Your task to perform on an android device: View the shopping cart on costco.com. Image 0: 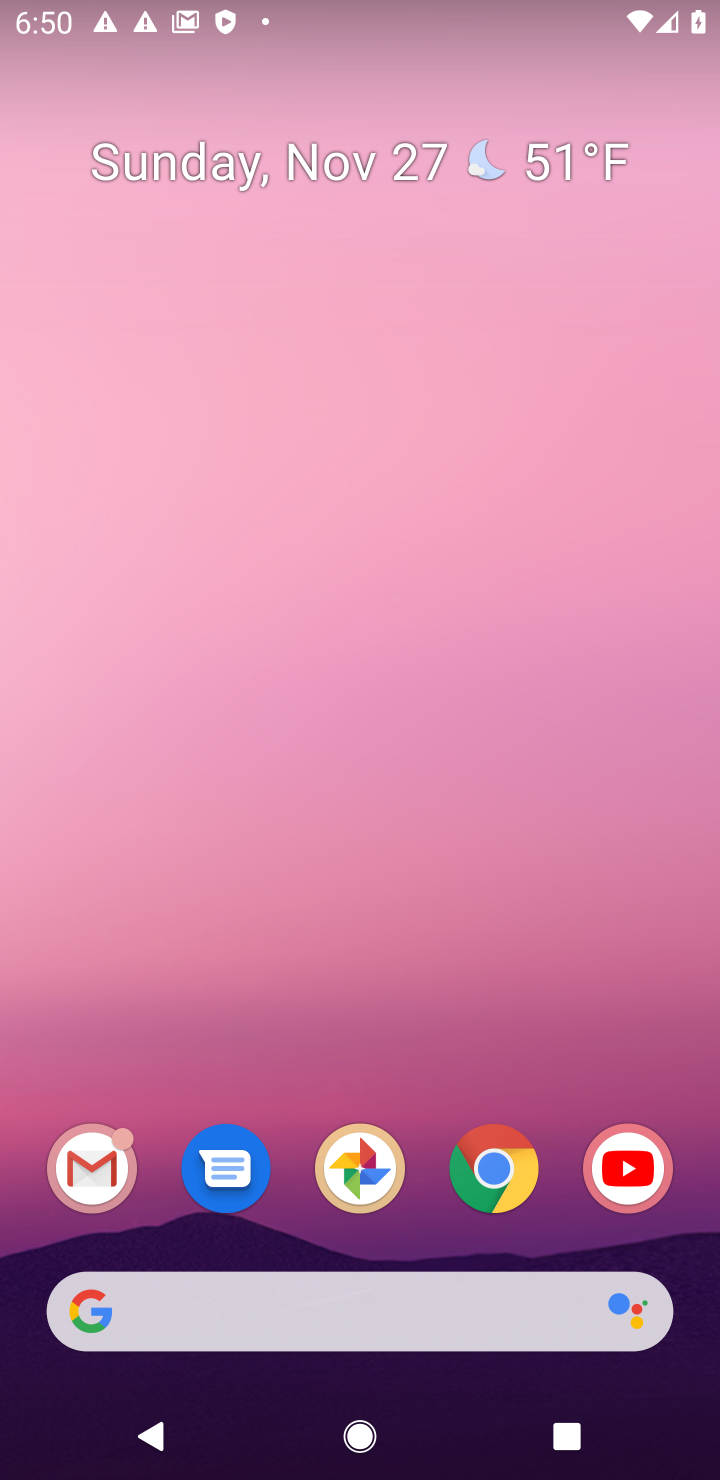
Step 0: click (493, 1171)
Your task to perform on an android device: View the shopping cart on costco.com. Image 1: 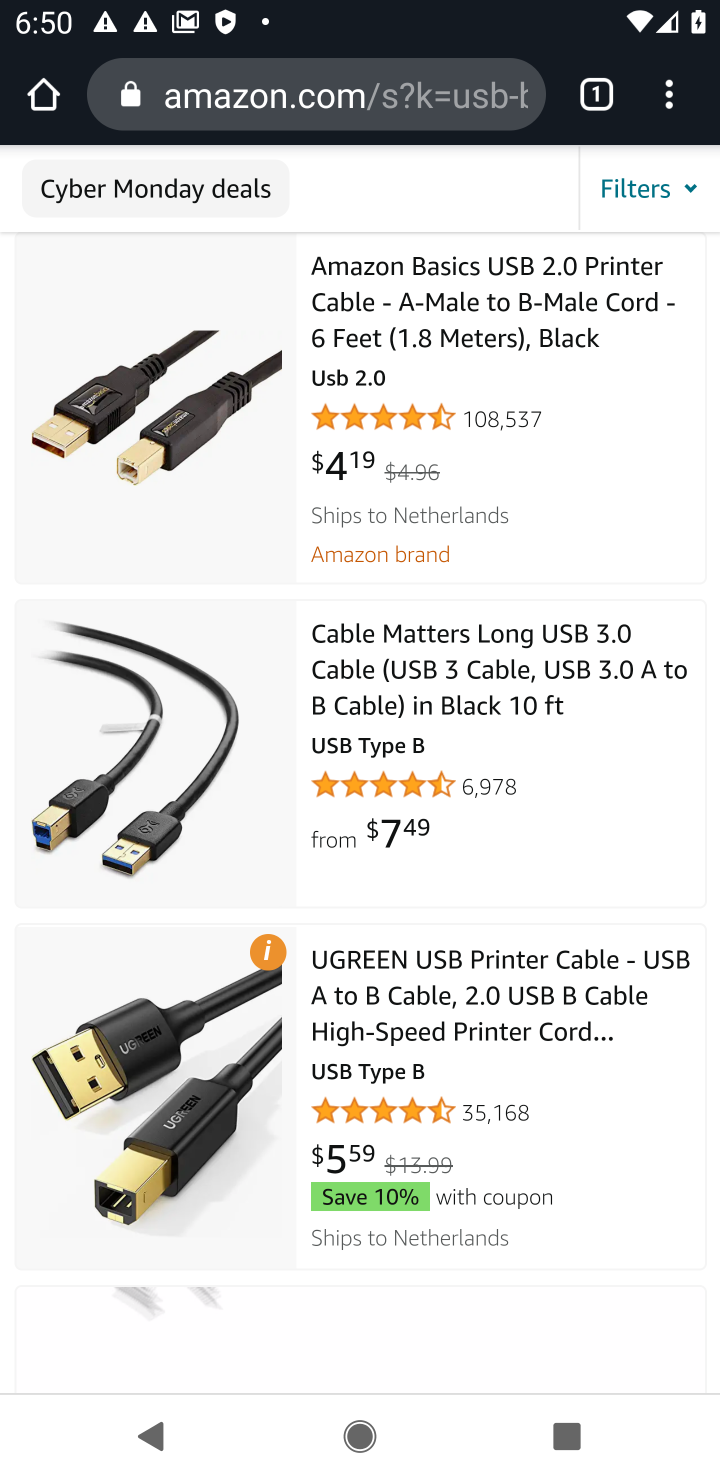
Step 1: click (457, 105)
Your task to perform on an android device: View the shopping cart on costco.com. Image 2: 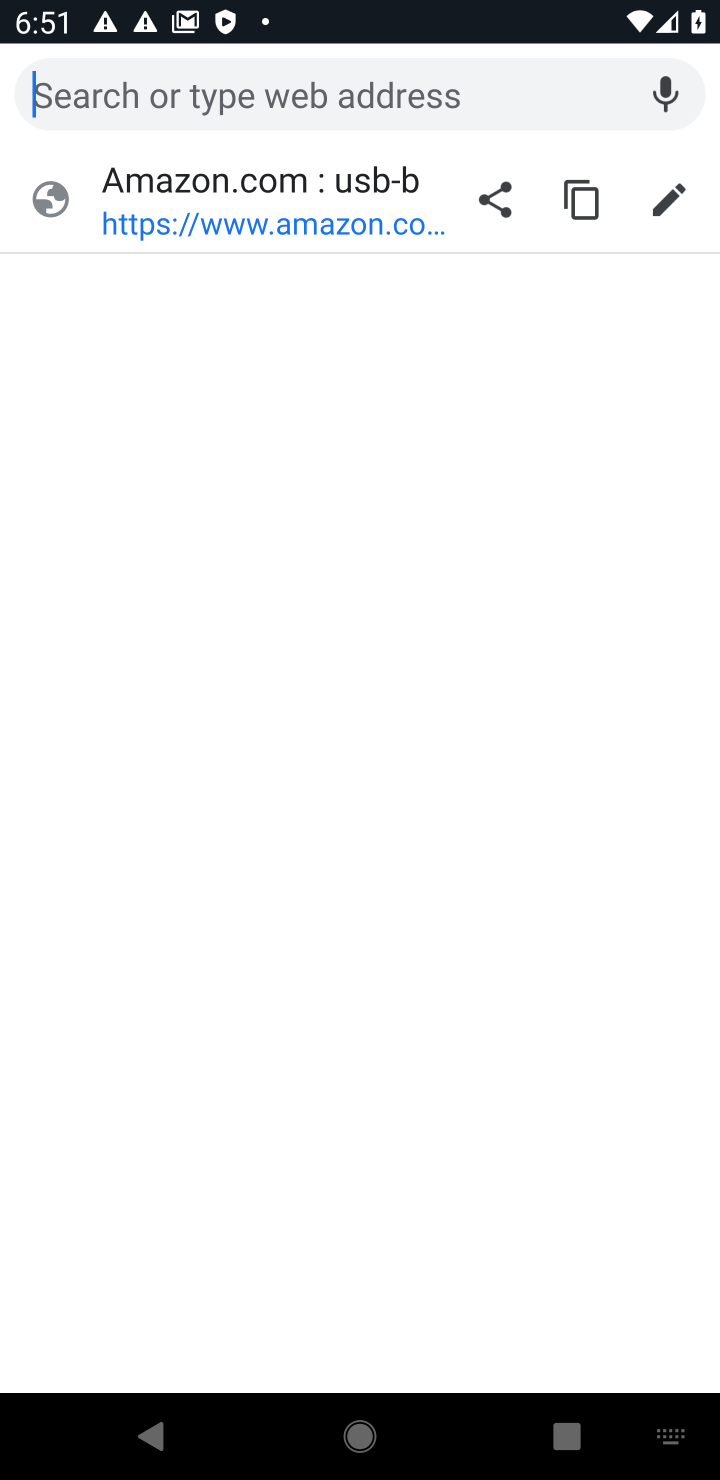
Step 2: type "costco.com"
Your task to perform on an android device: View the shopping cart on costco.com. Image 3: 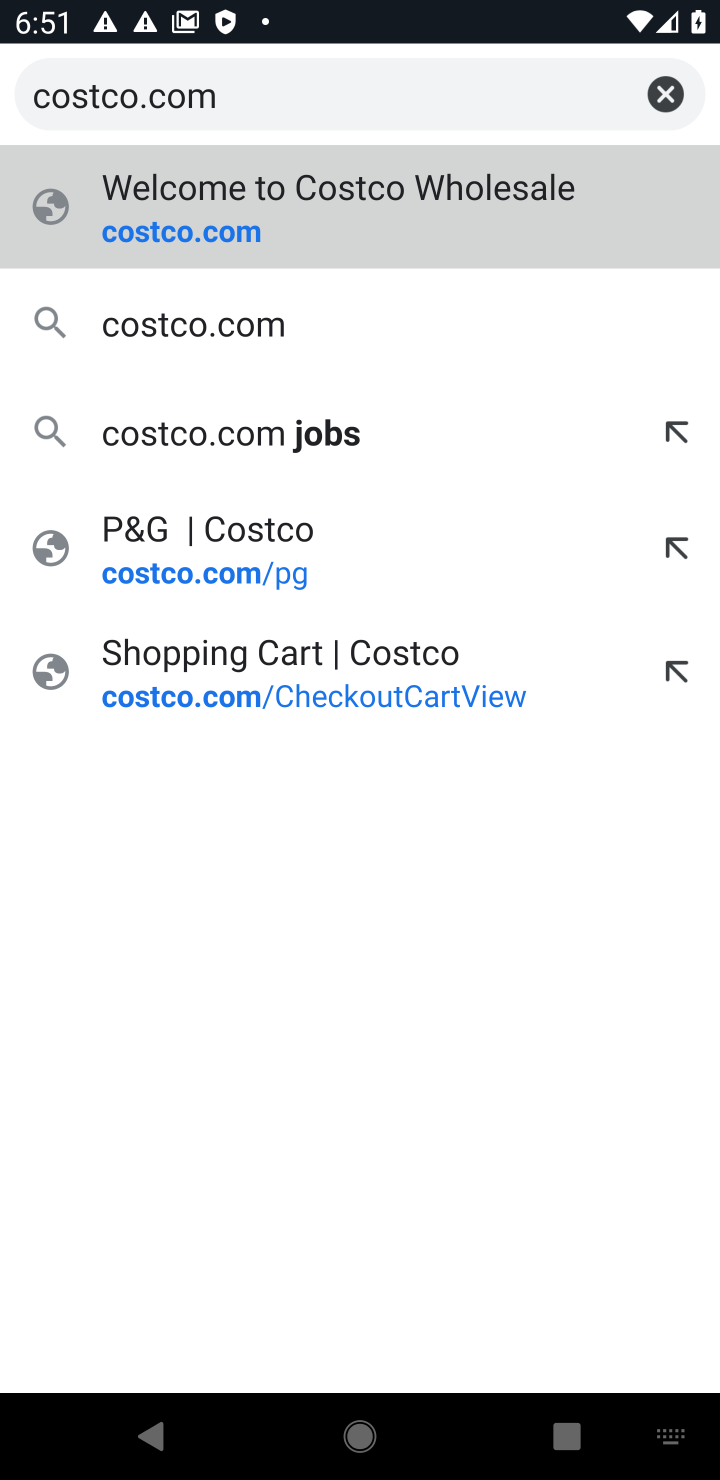
Step 3: click (205, 317)
Your task to perform on an android device: View the shopping cart on costco.com. Image 4: 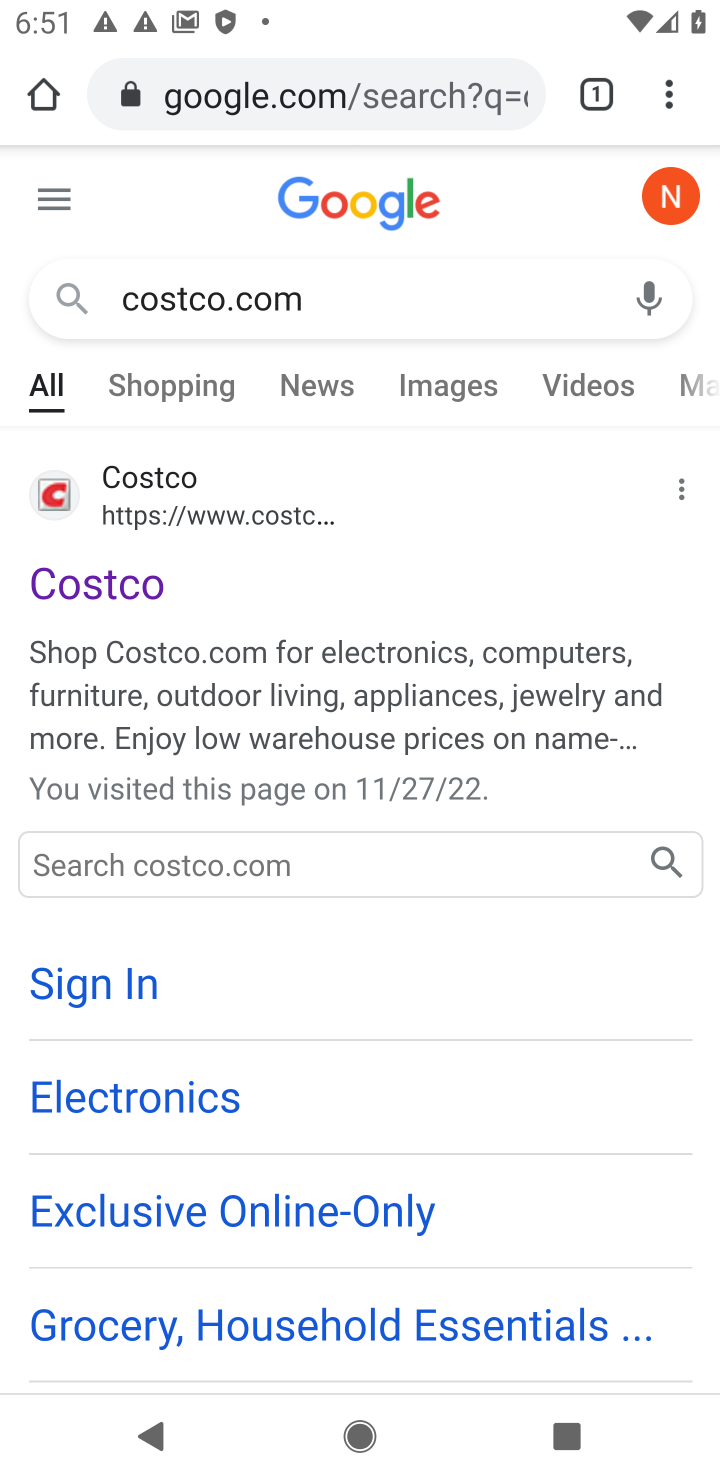
Step 4: click (99, 583)
Your task to perform on an android device: View the shopping cart on costco.com. Image 5: 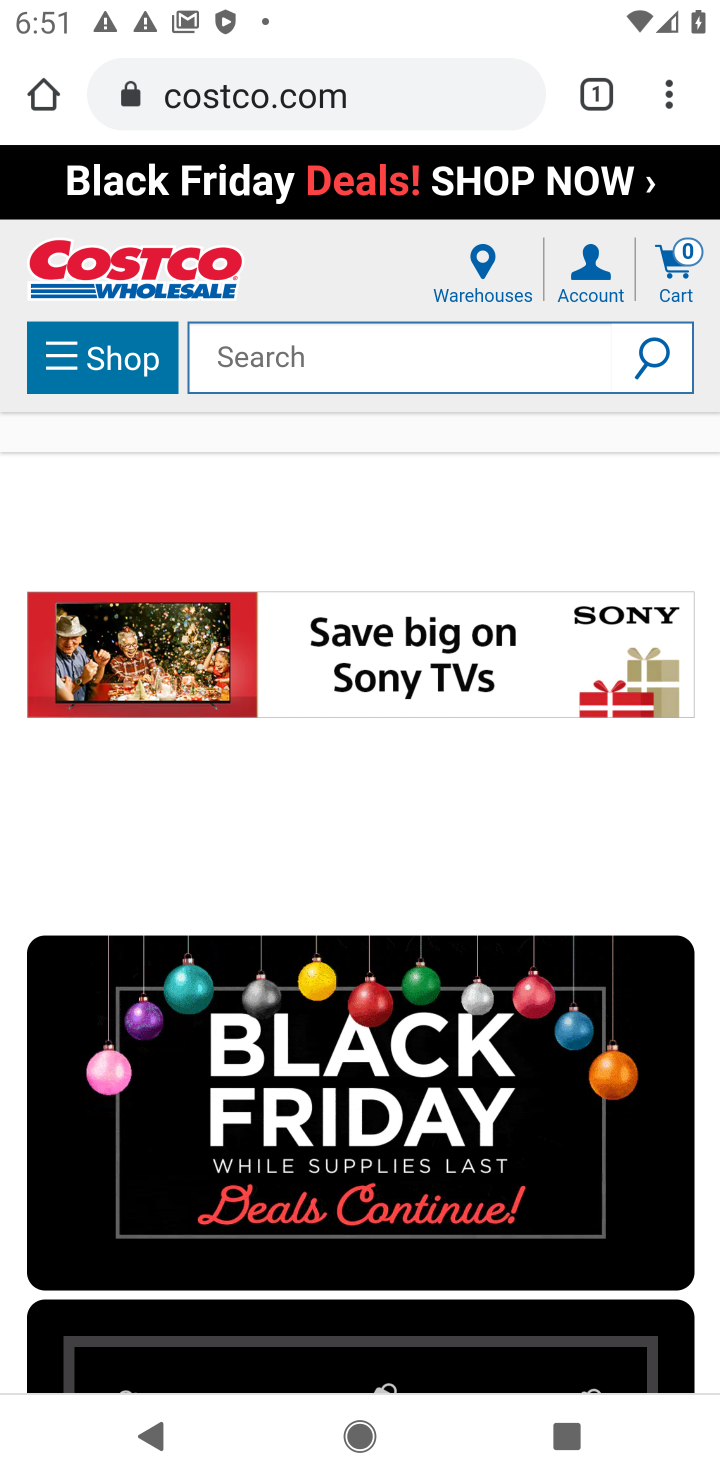
Step 5: click (684, 278)
Your task to perform on an android device: View the shopping cart on costco.com. Image 6: 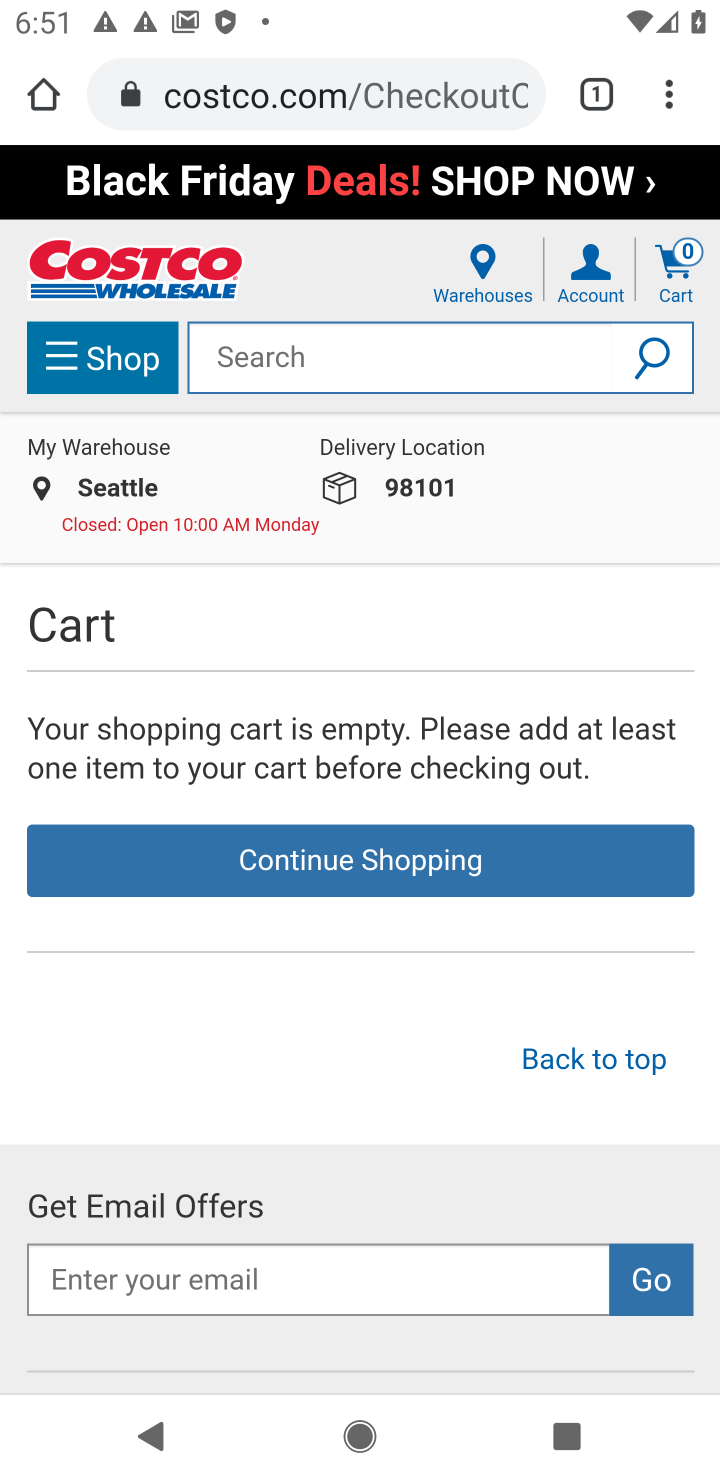
Step 6: task complete